Your task to perform on an android device: Go to Android settings Image 0: 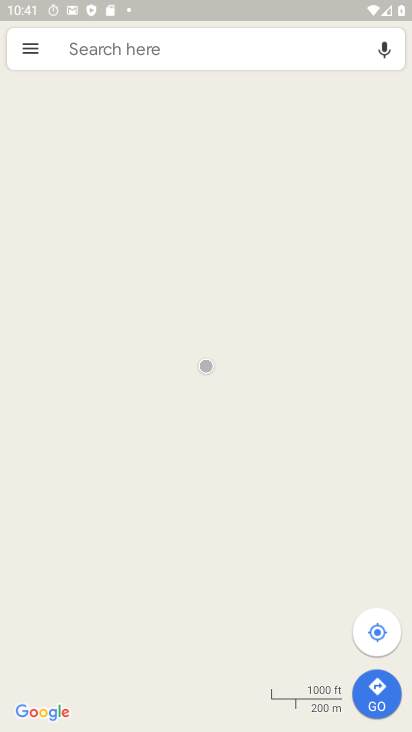
Step 0: press home button
Your task to perform on an android device: Go to Android settings Image 1: 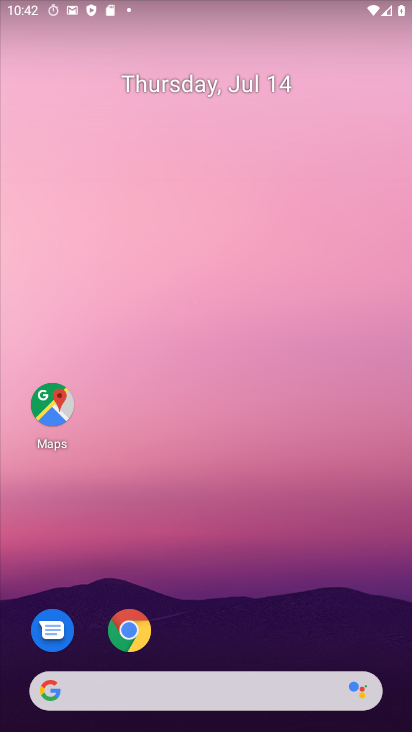
Step 1: drag from (296, 598) to (292, 112)
Your task to perform on an android device: Go to Android settings Image 2: 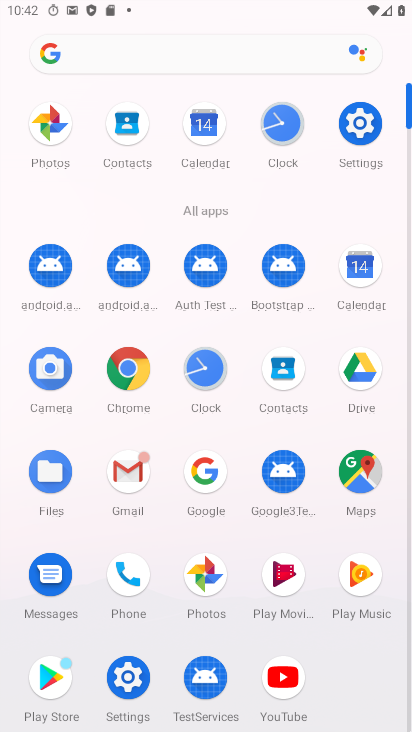
Step 2: click (373, 114)
Your task to perform on an android device: Go to Android settings Image 3: 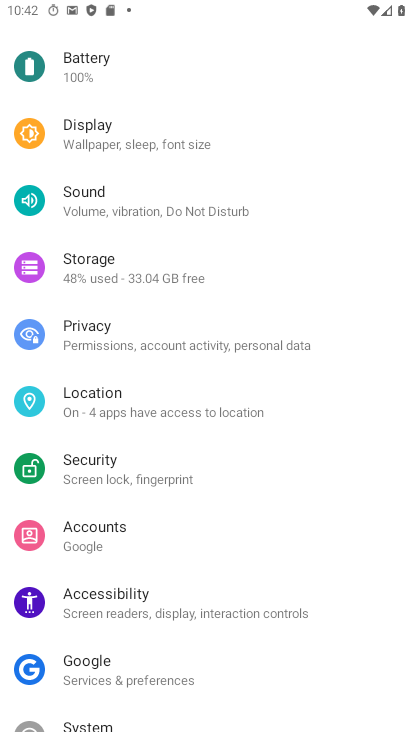
Step 3: click (131, 721)
Your task to perform on an android device: Go to Android settings Image 4: 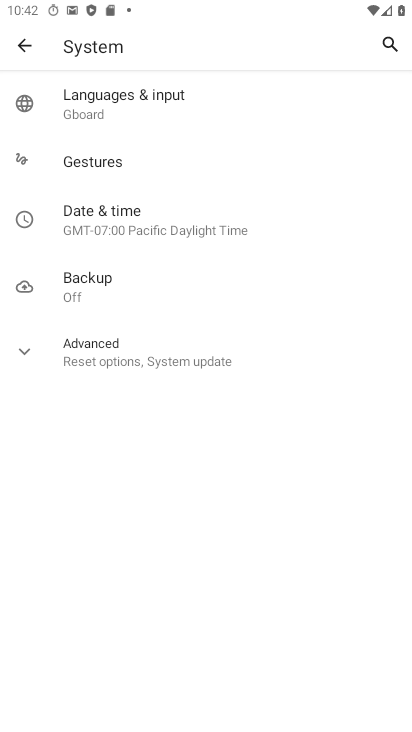
Step 4: task complete